Your task to perform on an android device: Search for pizza restaurants on Maps Image 0: 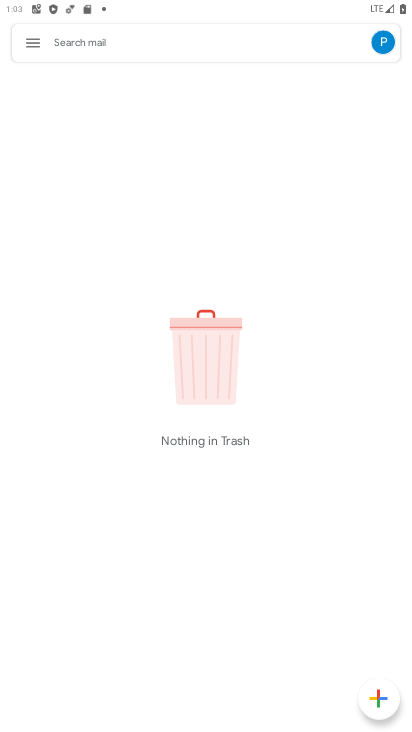
Step 0: press home button
Your task to perform on an android device: Search for pizza restaurants on Maps Image 1: 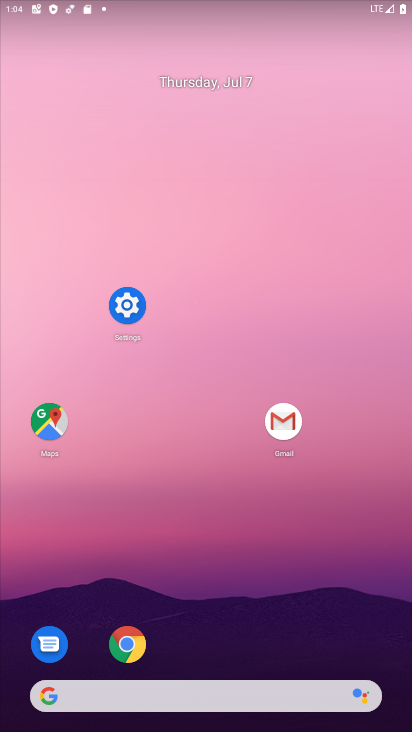
Step 1: click (54, 417)
Your task to perform on an android device: Search for pizza restaurants on Maps Image 2: 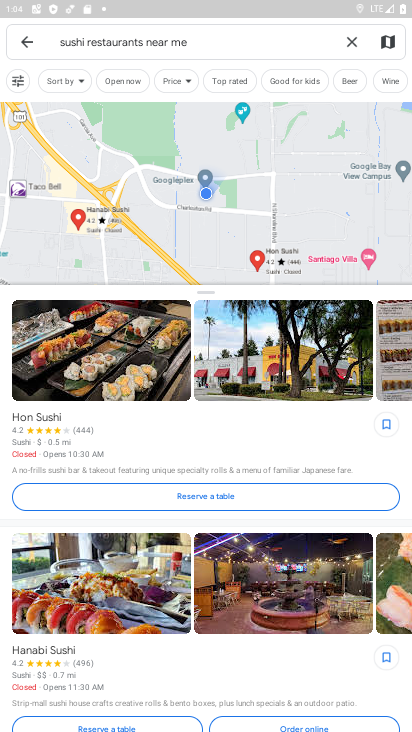
Step 2: click (355, 32)
Your task to perform on an android device: Search for pizza restaurants on Maps Image 3: 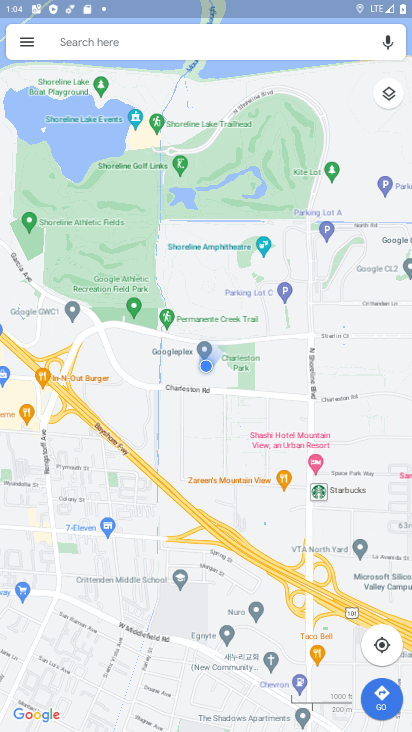
Step 3: click (177, 37)
Your task to perform on an android device: Search for pizza restaurants on Maps Image 4: 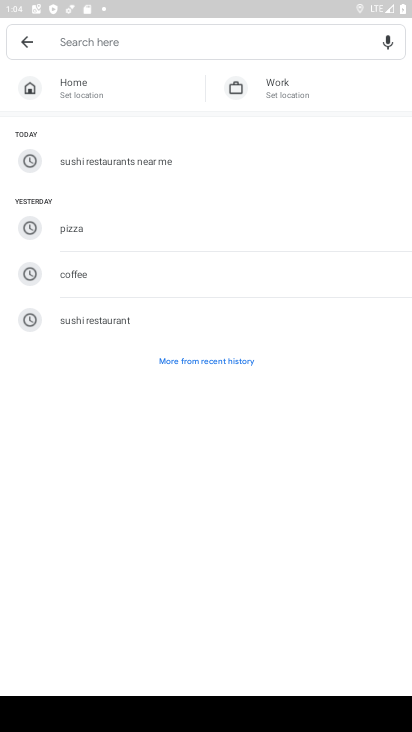
Step 4: type "pizza restaurants"
Your task to perform on an android device: Search for pizza restaurants on Maps Image 5: 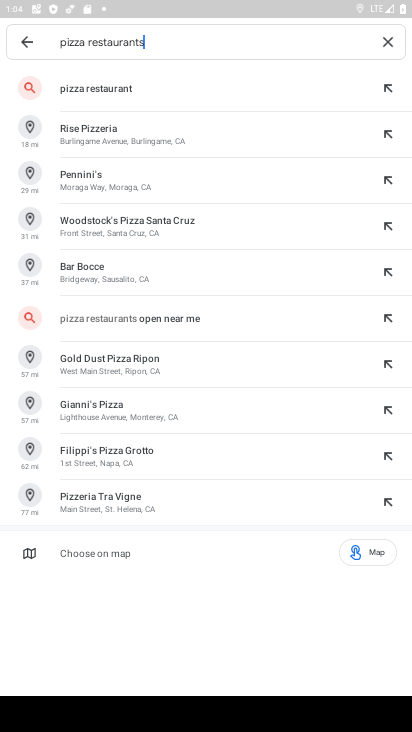
Step 5: click (91, 83)
Your task to perform on an android device: Search for pizza restaurants on Maps Image 6: 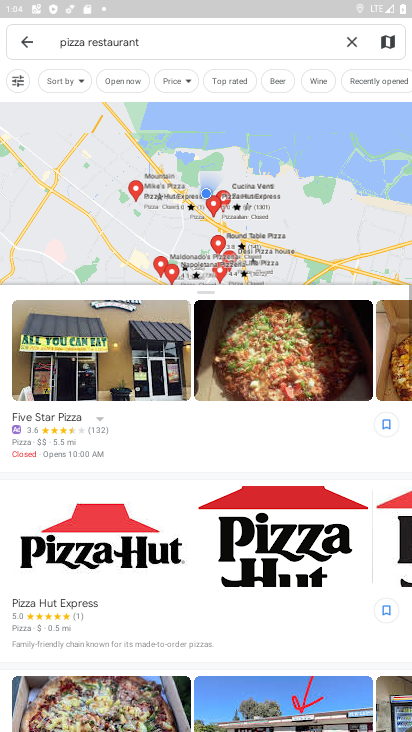
Step 6: task complete